Your task to perform on an android device: Go to internet settings Image 0: 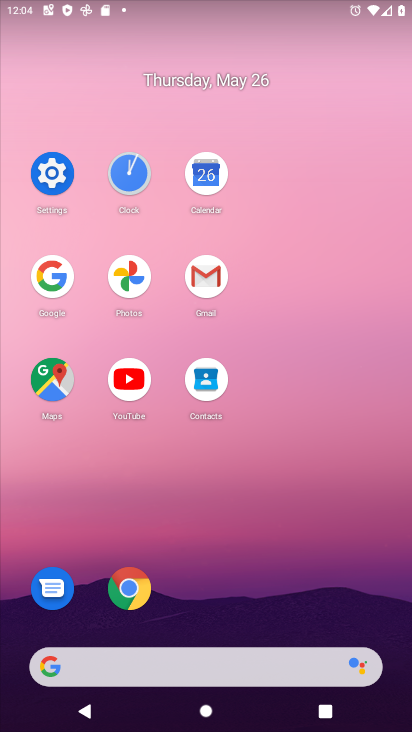
Step 0: click (78, 173)
Your task to perform on an android device: Go to internet settings Image 1: 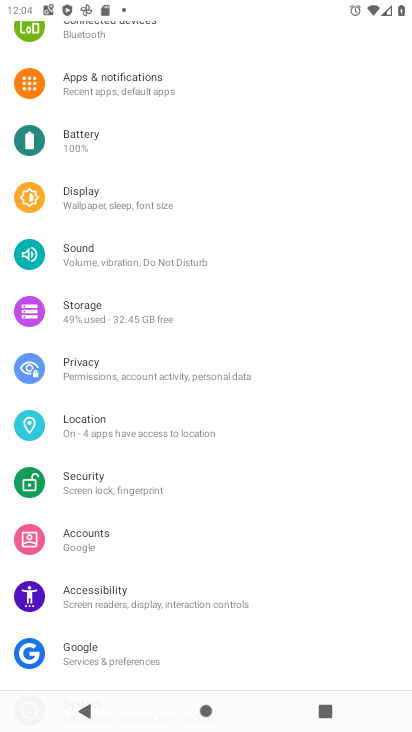
Step 1: drag from (205, 172) to (184, 490)
Your task to perform on an android device: Go to internet settings Image 2: 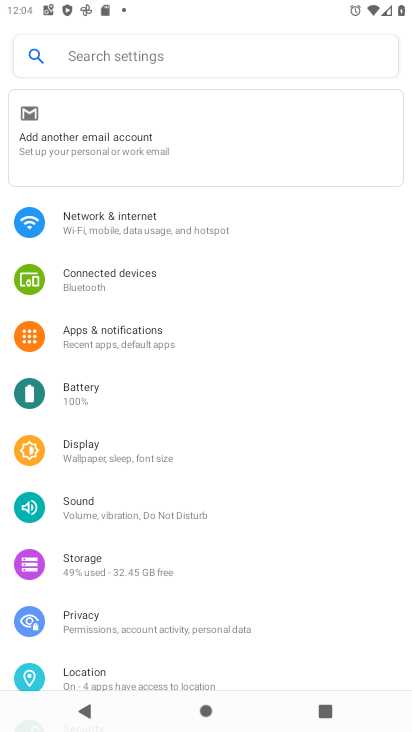
Step 2: click (180, 223)
Your task to perform on an android device: Go to internet settings Image 3: 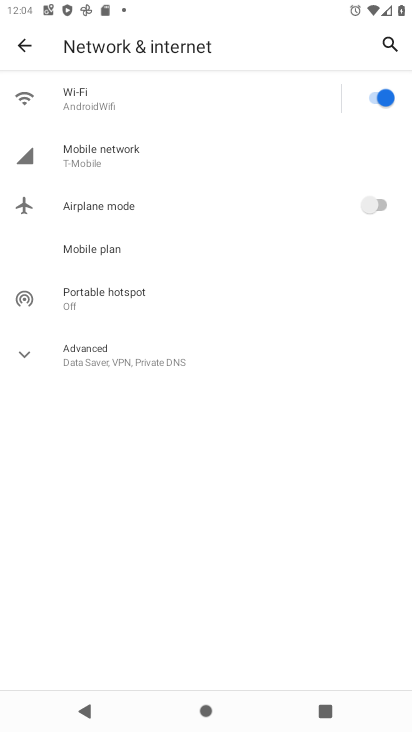
Step 3: task complete